Your task to perform on an android device: turn off notifications in google photos Image 0: 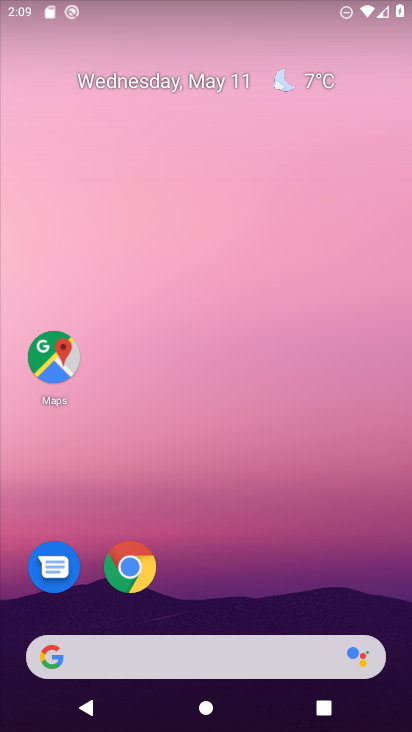
Step 0: drag from (339, 577) to (283, 246)
Your task to perform on an android device: turn off notifications in google photos Image 1: 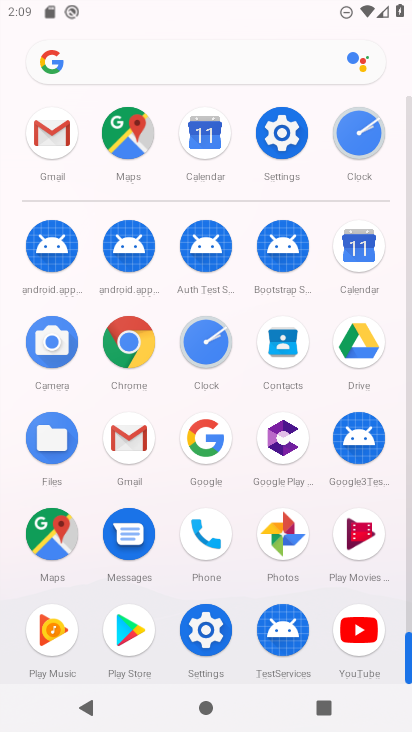
Step 1: click (284, 539)
Your task to perform on an android device: turn off notifications in google photos Image 2: 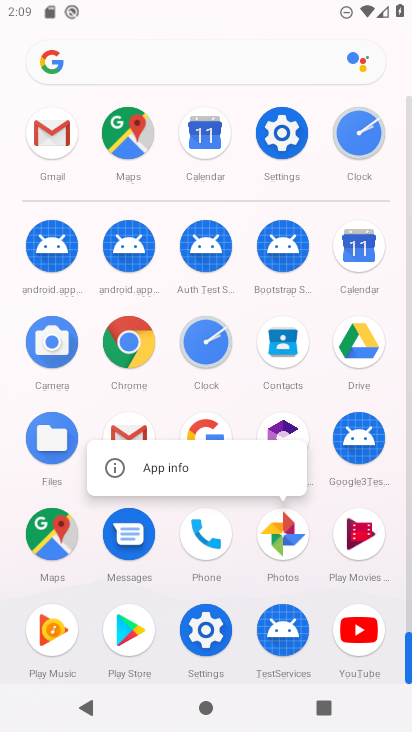
Step 2: click (198, 471)
Your task to perform on an android device: turn off notifications in google photos Image 3: 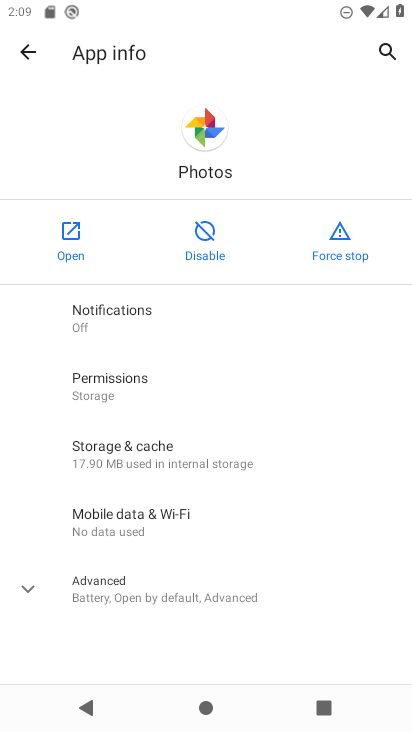
Step 3: click (158, 317)
Your task to perform on an android device: turn off notifications in google photos Image 4: 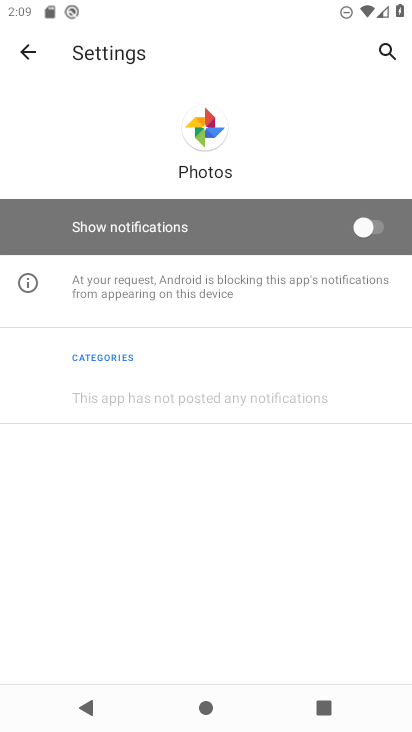
Step 4: task complete